Your task to perform on an android device: turn on data saver in the chrome app Image 0: 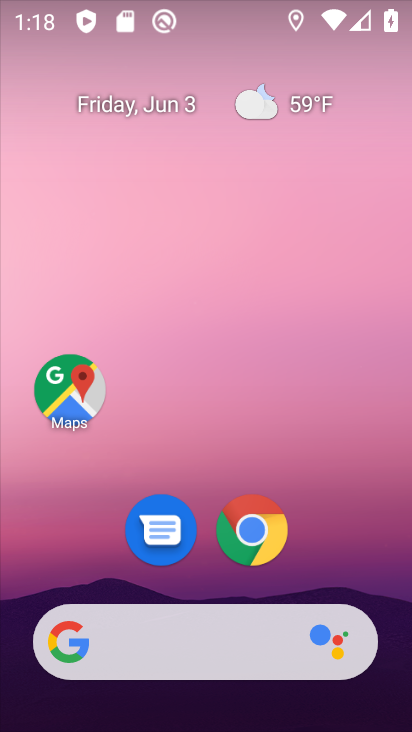
Step 0: click (248, 526)
Your task to perform on an android device: turn on data saver in the chrome app Image 1: 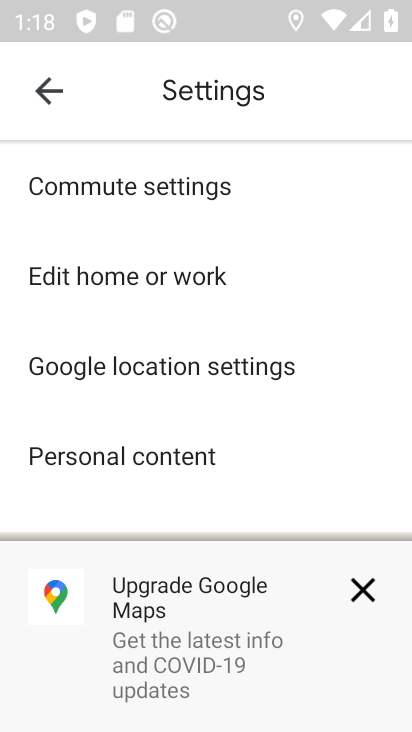
Step 1: press home button
Your task to perform on an android device: turn on data saver in the chrome app Image 2: 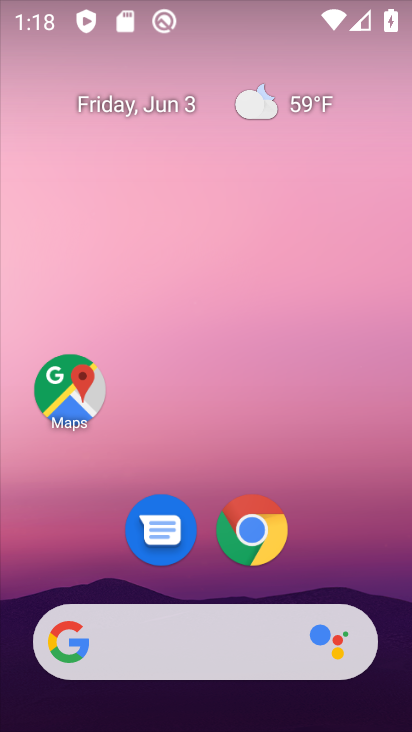
Step 2: click (261, 537)
Your task to perform on an android device: turn on data saver in the chrome app Image 3: 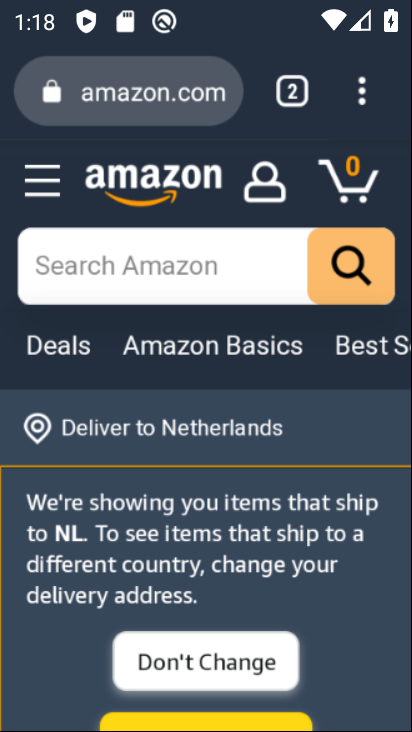
Step 3: click (363, 76)
Your task to perform on an android device: turn on data saver in the chrome app Image 4: 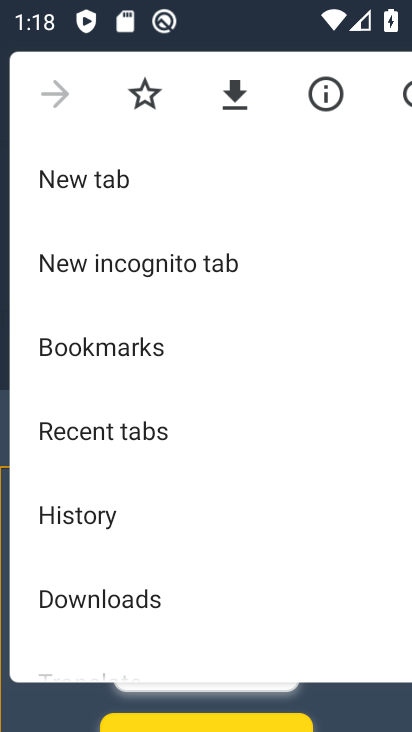
Step 4: drag from (155, 587) to (141, 237)
Your task to perform on an android device: turn on data saver in the chrome app Image 5: 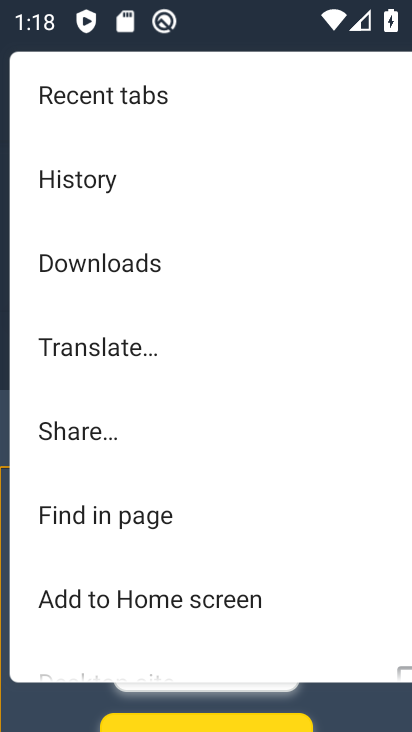
Step 5: drag from (138, 506) to (141, 175)
Your task to perform on an android device: turn on data saver in the chrome app Image 6: 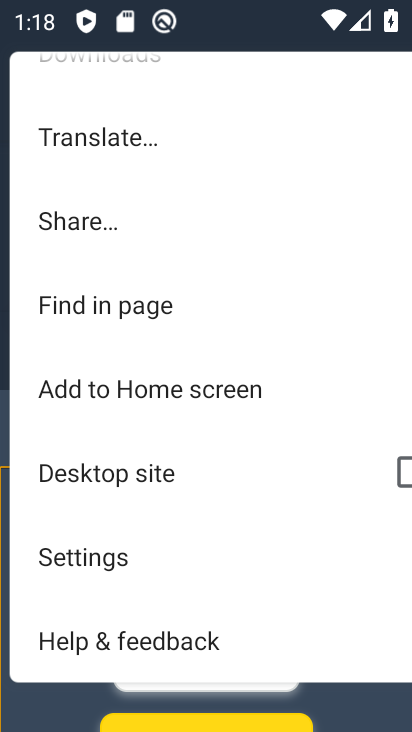
Step 6: click (116, 547)
Your task to perform on an android device: turn on data saver in the chrome app Image 7: 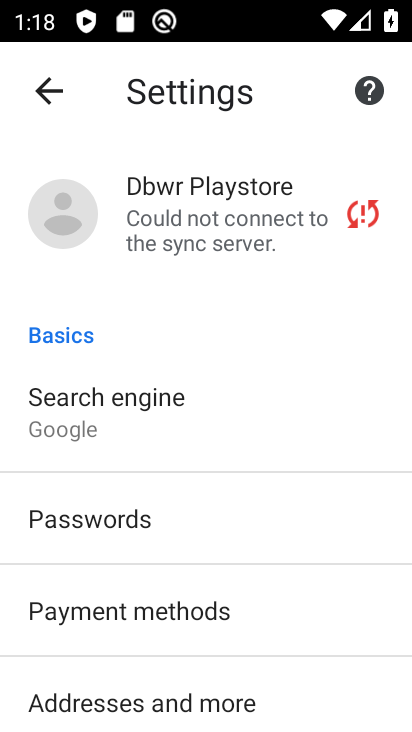
Step 7: drag from (138, 599) to (148, 171)
Your task to perform on an android device: turn on data saver in the chrome app Image 8: 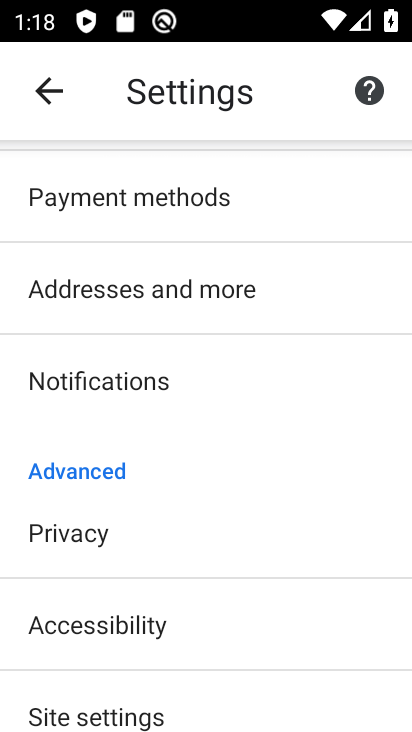
Step 8: drag from (164, 708) to (162, 254)
Your task to perform on an android device: turn on data saver in the chrome app Image 9: 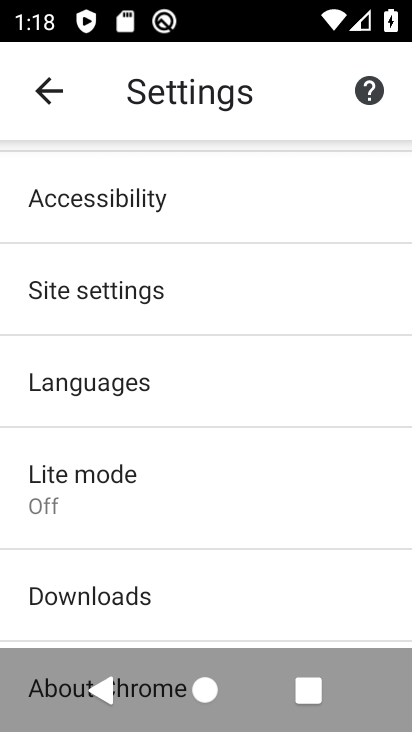
Step 9: click (151, 462)
Your task to perform on an android device: turn on data saver in the chrome app Image 10: 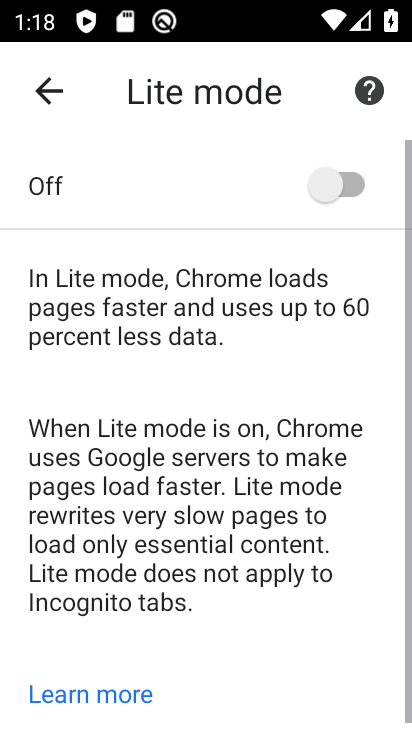
Step 10: click (343, 177)
Your task to perform on an android device: turn on data saver in the chrome app Image 11: 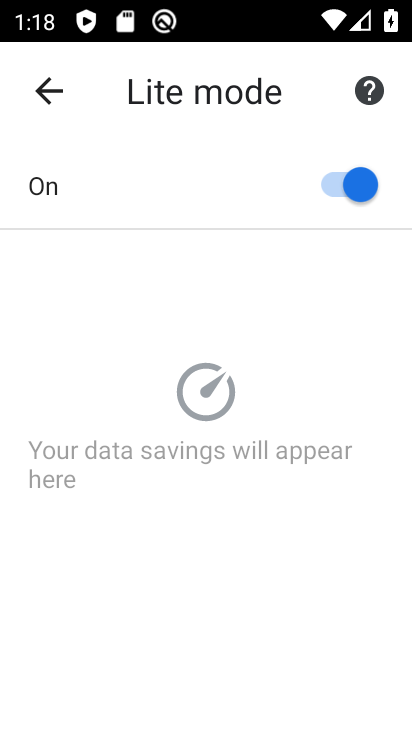
Step 11: task complete